Your task to perform on an android device: turn off sleep mode Image 0: 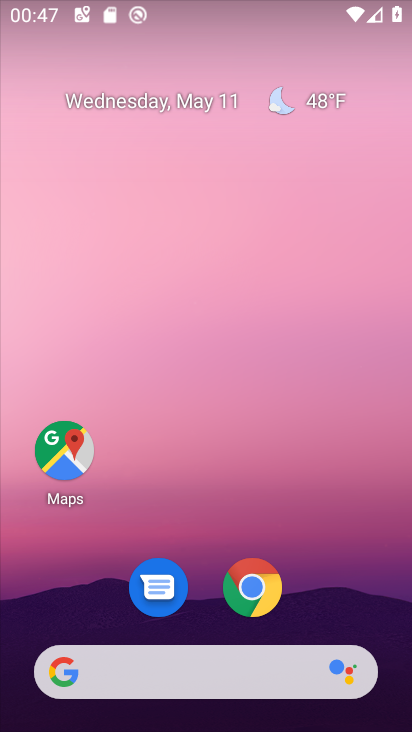
Step 0: drag from (340, 591) to (256, 216)
Your task to perform on an android device: turn off sleep mode Image 1: 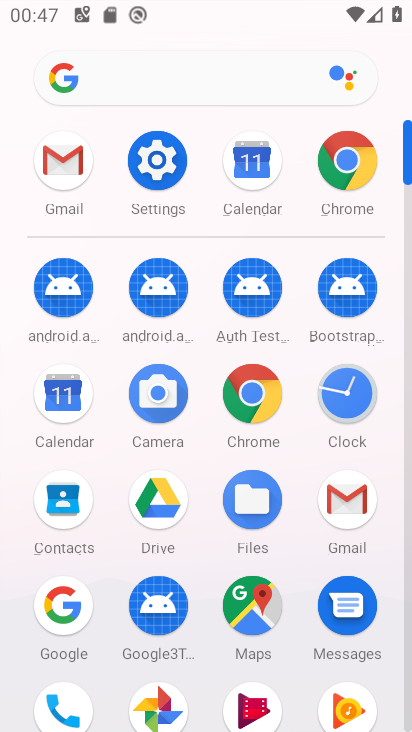
Step 1: click (137, 145)
Your task to perform on an android device: turn off sleep mode Image 2: 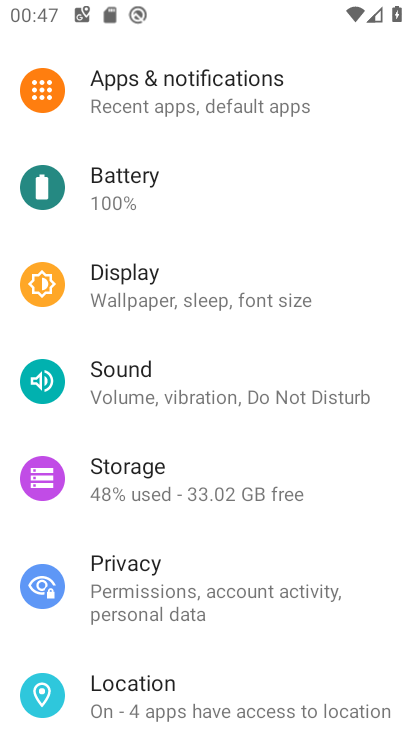
Step 2: click (153, 312)
Your task to perform on an android device: turn off sleep mode Image 3: 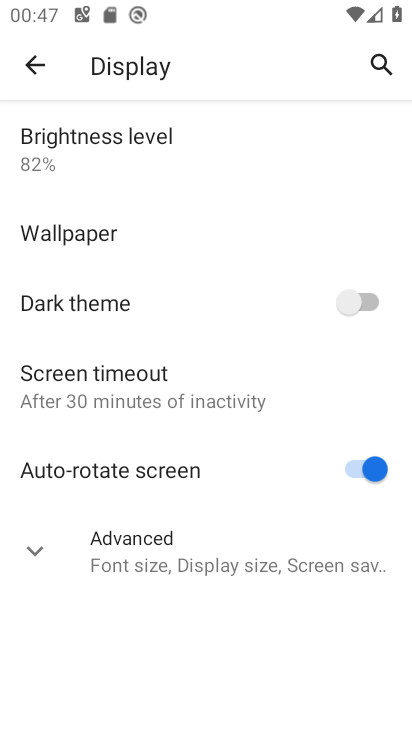
Step 3: click (188, 528)
Your task to perform on an android device: turn off sleep mode Image 4: 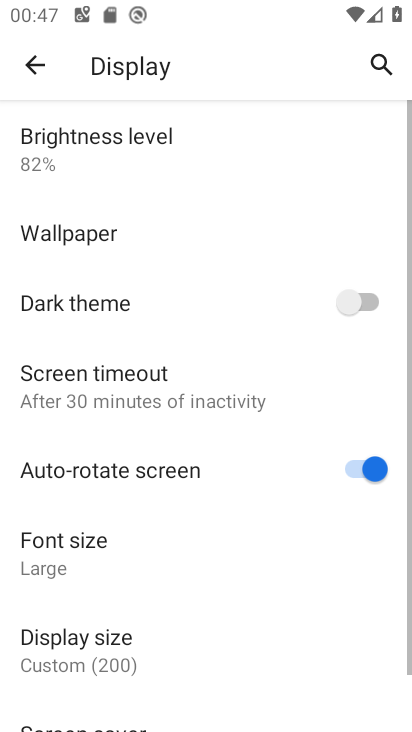
Step 4: task complete